Your task to perform on an android device: Open the calendar and show me this week's events Image 0: 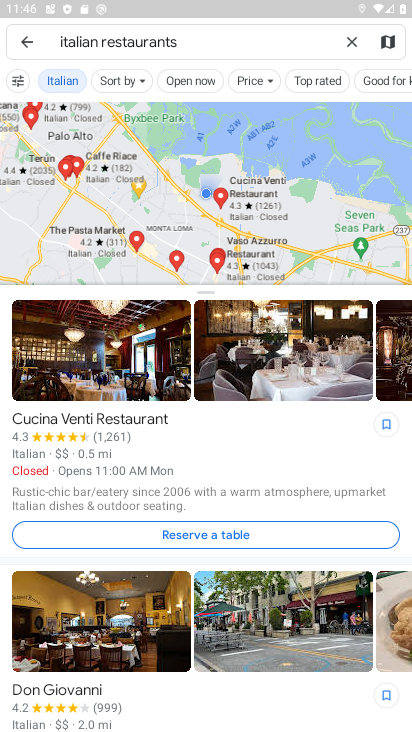
Step 0: press home button
Your task to perform on an android device: Open the calendar and show me this week's events Image 1: 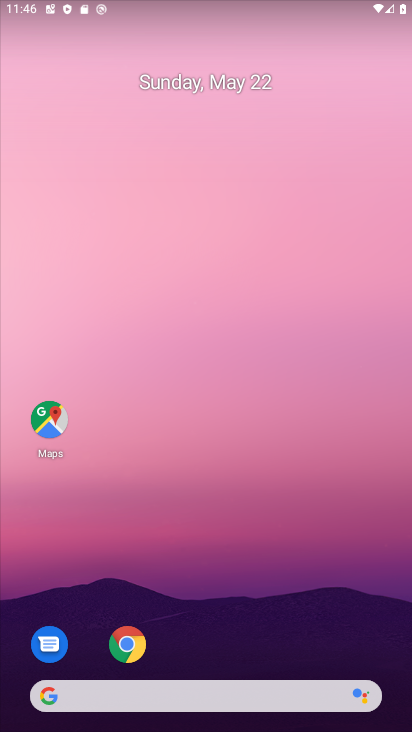
Step 1: drag from (391, 646) to (322, 118)
Your task to perform on an android device: Open the calendar and show me this week's events Image 2: 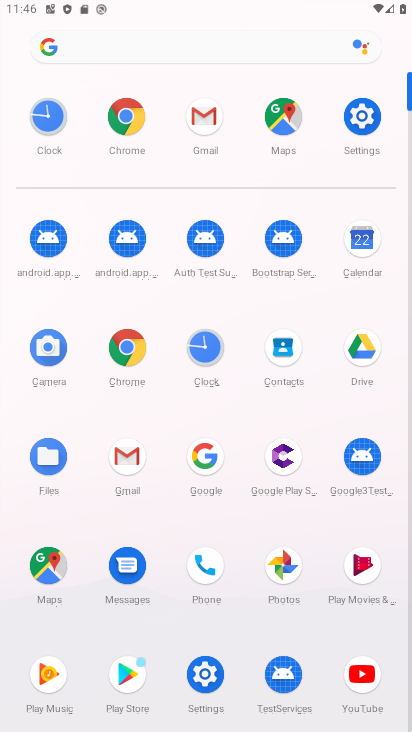
Step 2: click (361, 256)
Your task to perform on an android device: Open the calendar and show me this week's events Image 3: 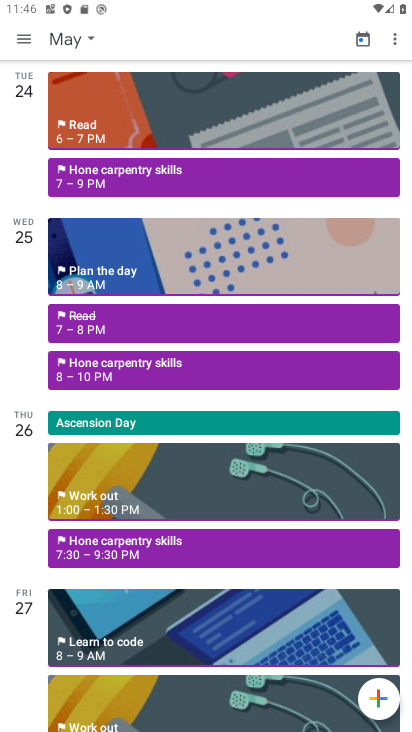
Step 3: click (26, 37)
Your task to perform on an android device: Open the calendar and show me this week's events Image 4: 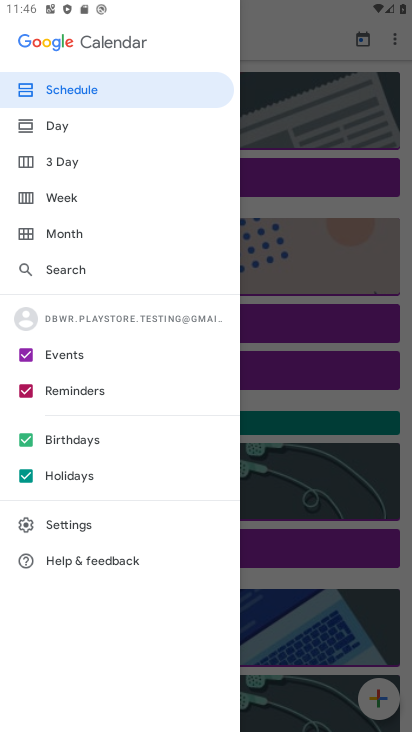
Step 4: click (110, 89)
Your task to perform on an android device: Open the calendar and show me this week's events Image 5: 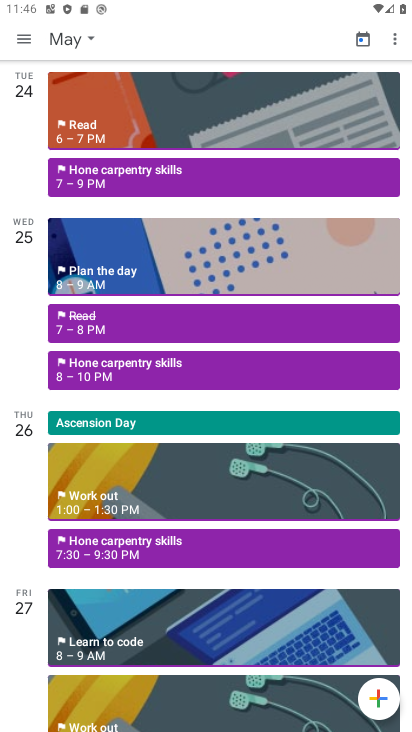
Step 5: task complete